Your task to perform on an android device: Open the Play Movies app and select the watchlist tab. Image 0: 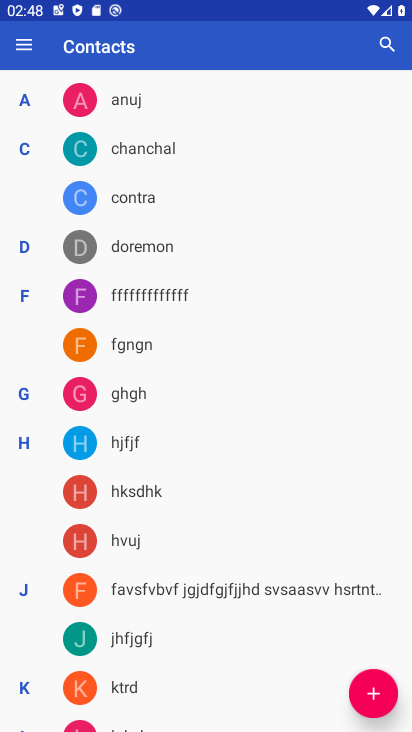
Step 0: press home button
Your task to perform on an android device: Open the Play Movies app and select the watchlist tab. Image 1: 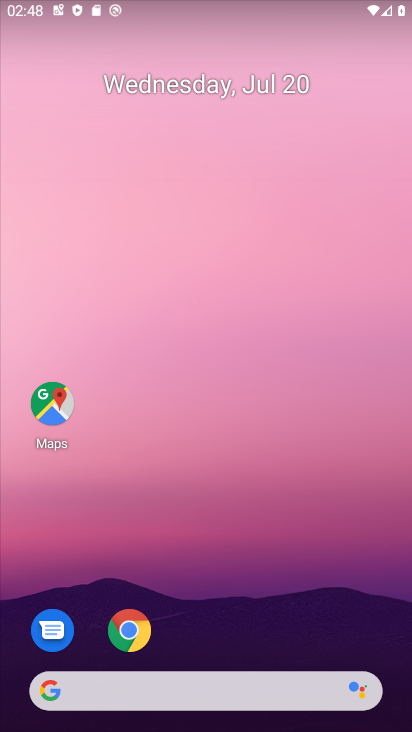
Step 1: drag from (362, 629) to (354, 112)
Your task to perform on an android device: Open the Play Movies app and select the watchlist tab. Image 2: 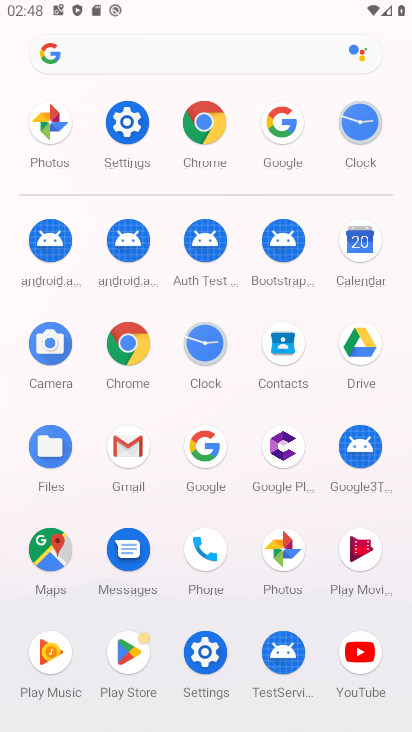
Step 2: click (357, 558)
Your task to perform on an android device: Open the Play Movies app and select the watchlist tab. Image 3: 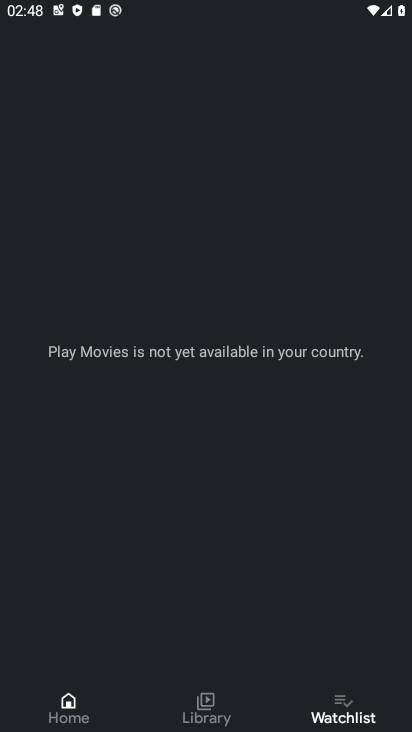
Step 3: task complete